Your task to perform on an android device: open app "McDonald's" Image 0: 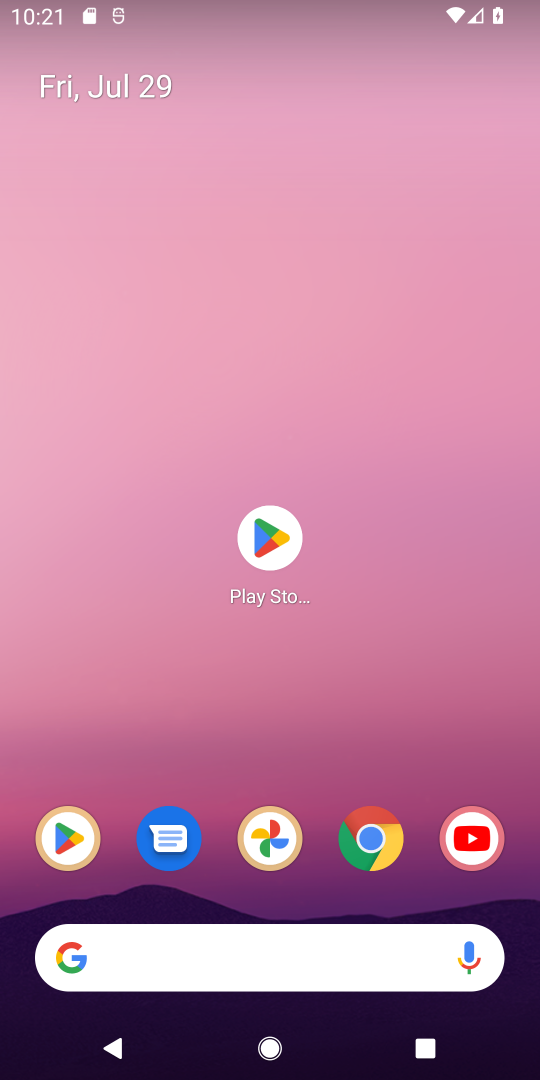
Step 0: press home button
Your task to perform on an android device: open app "McDonald's" Image 1: 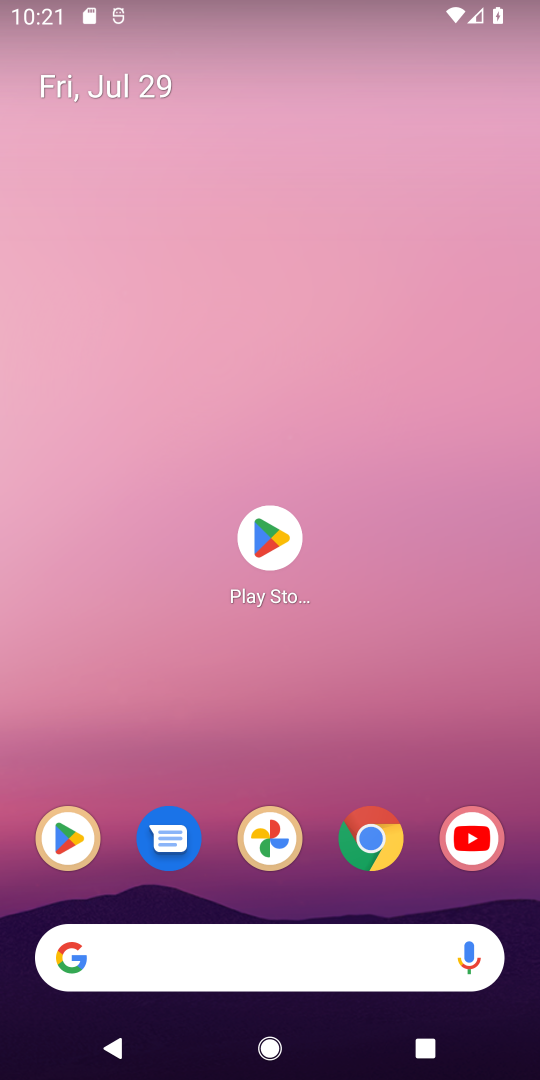
Step 1: click (263, 533)
Your task to perform on an android device: open app "McDonald's" Image 2: 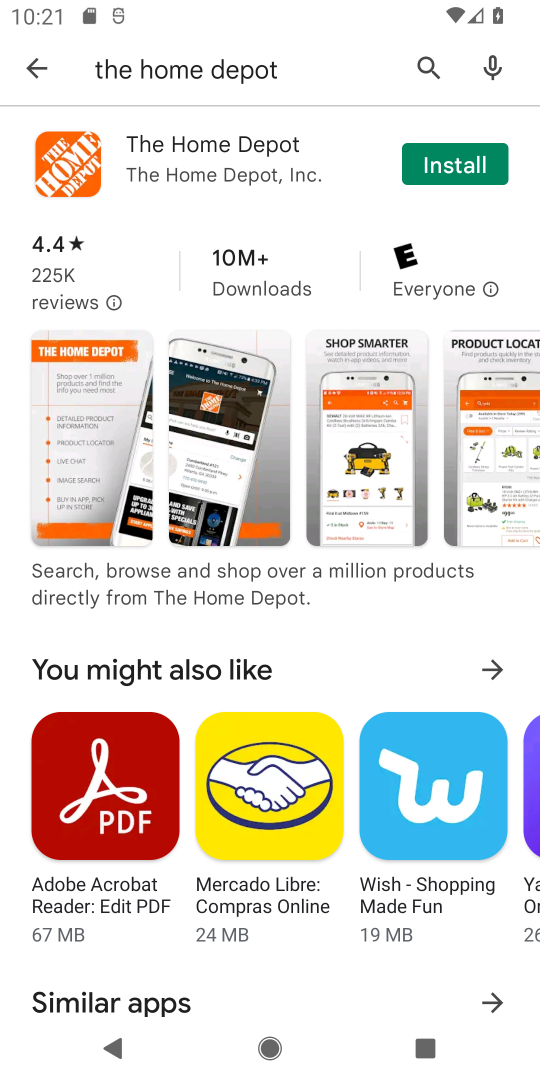
Step 2: click (419, 71)
Your task to perform on an android device: open app "McDonald's" Image 3: 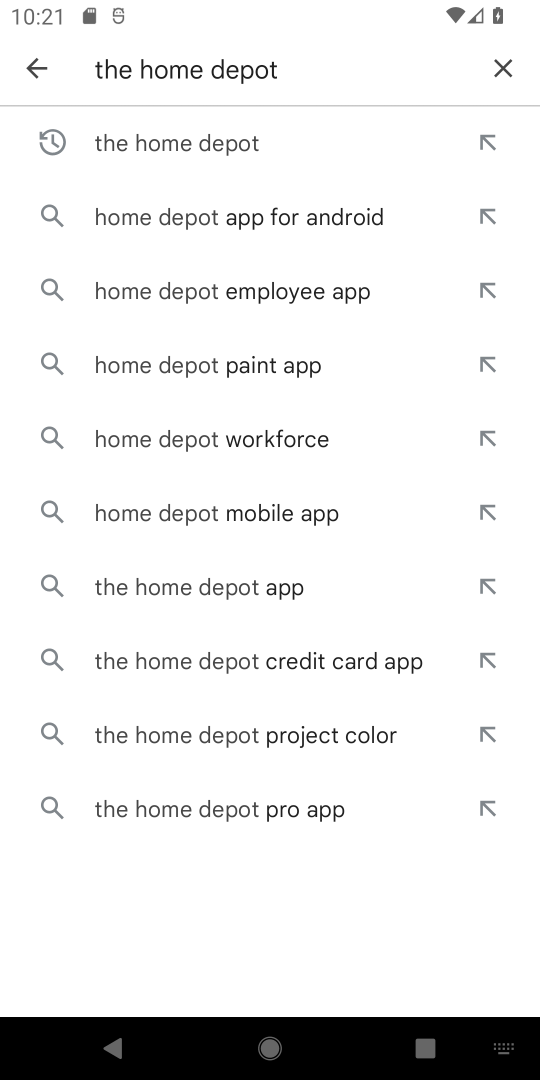
Step 3: click (496, 52)
Your task to perform on an android device: open app "McDonald's" Image 4: 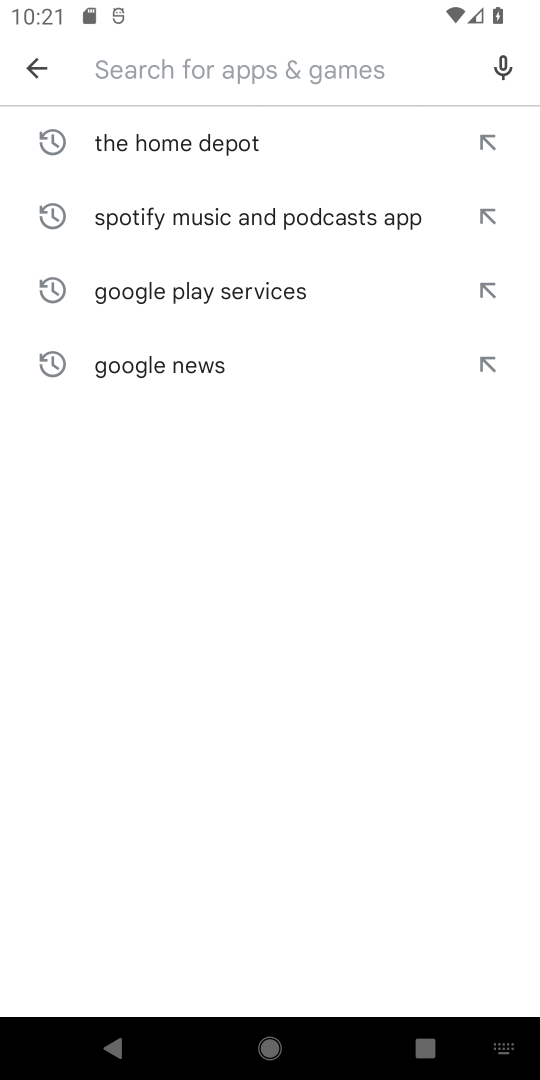
Step 4: type "McDonald's"
Your task to perform on an android device: open app "McDonald's" Image 5: 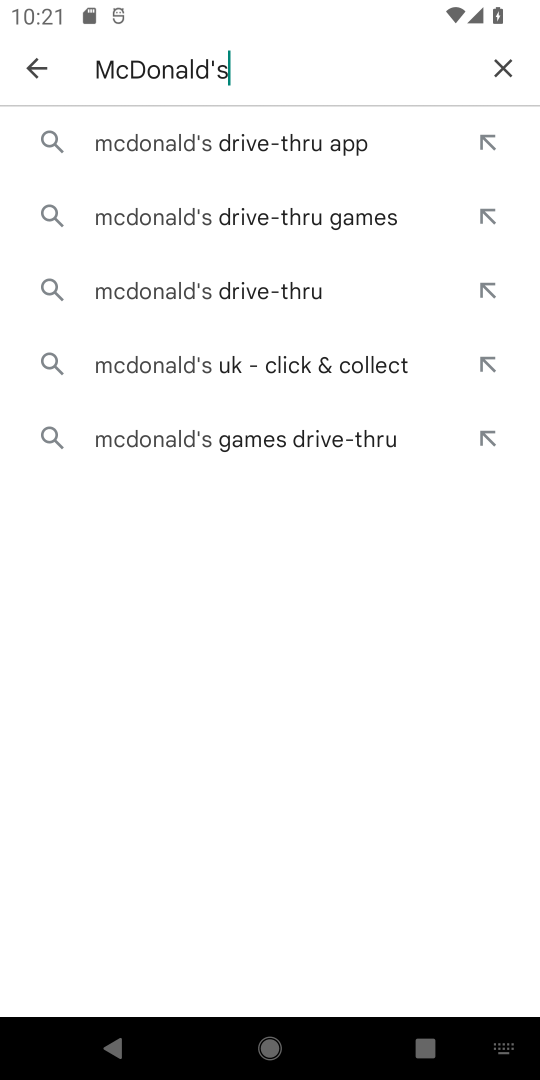
Step 5: click (189, 139)
Your task to perform on an android device: open app "McDonald's" Image 6: 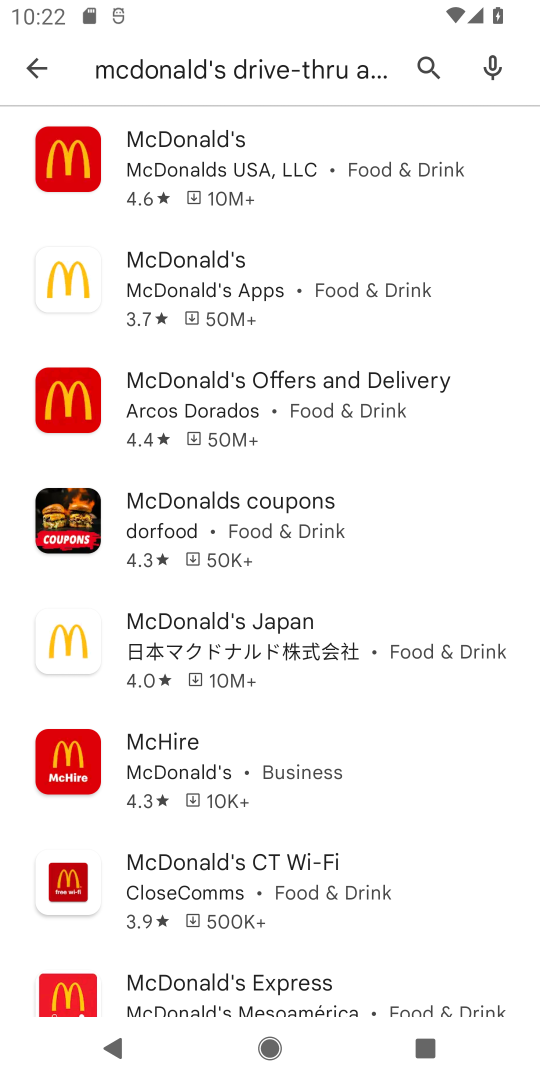
Step 6: click (199, 181)
Your task to perform on an android device: open app "McDonald's" Image 7: 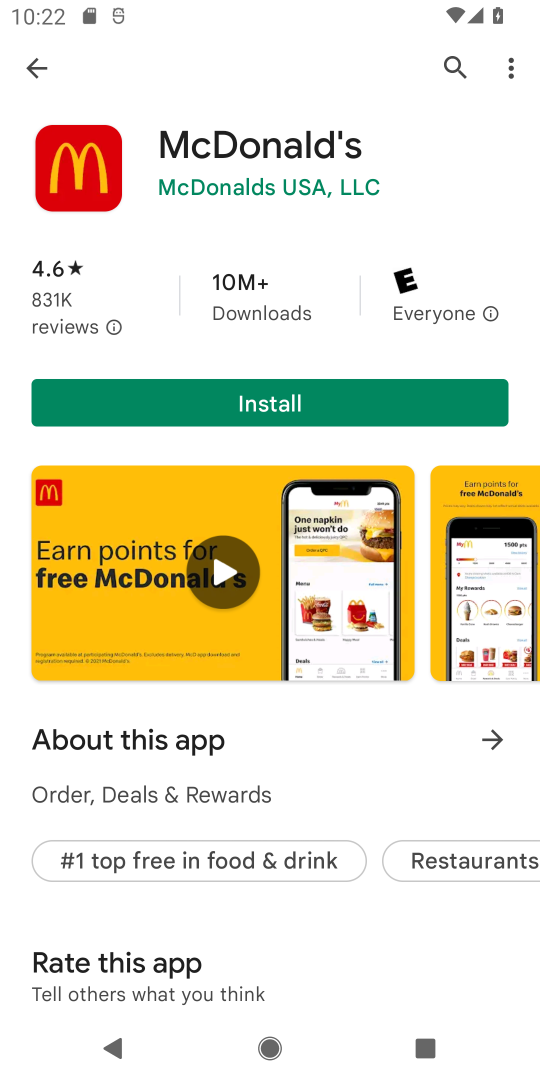
Step 7: task complete